Your task to perform on an android device: Clear all items from cart on walmart. Image 0: 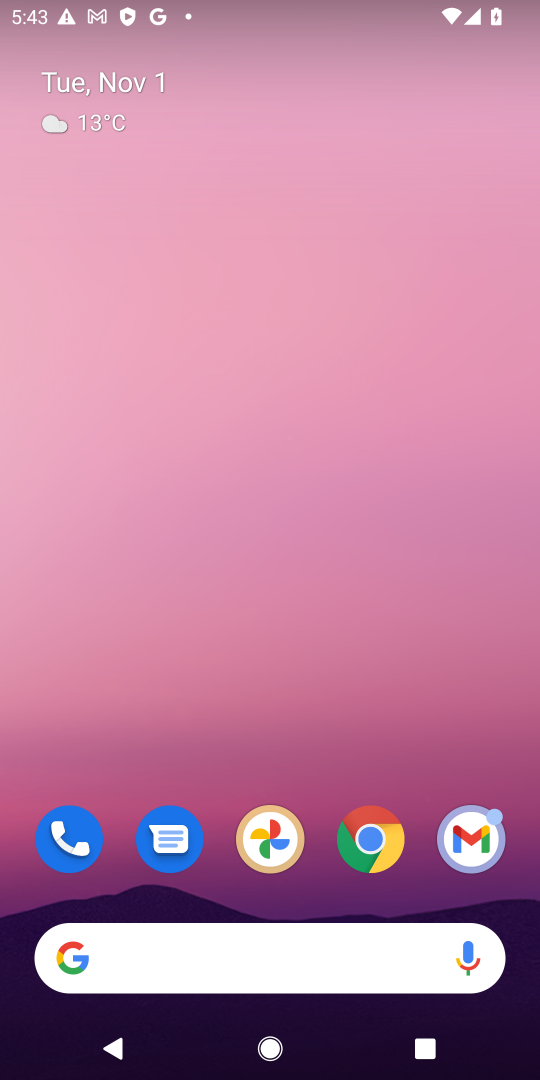
Step 0: drag from (332, 891) to (453, 123)
Your task to perform on an android device: Clear all items from cart on walmart. Image 1: 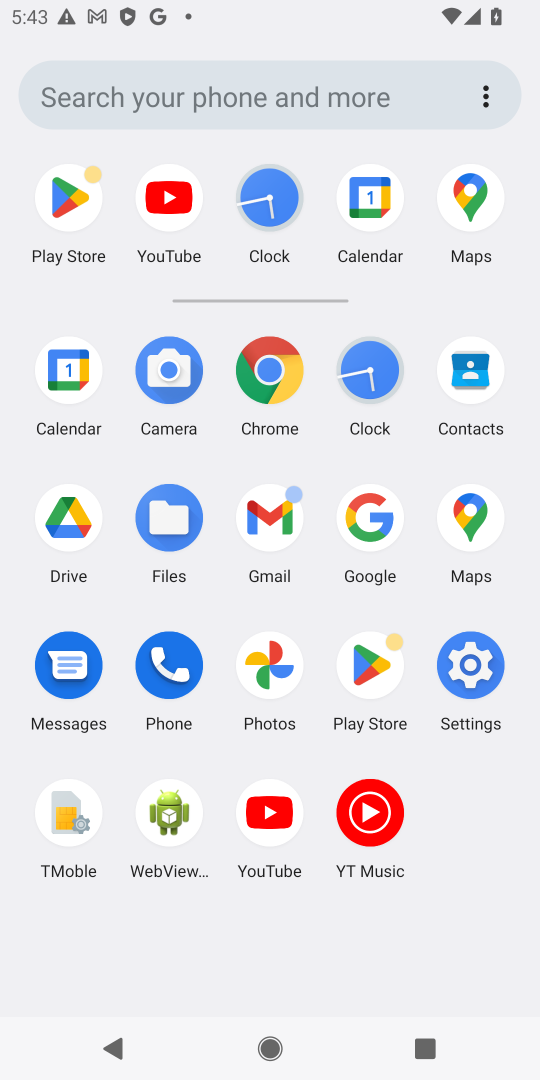
Step 1: click (265, 355)
Your task to perform on an android device: Clear all items from cart on walmart. Image 2: 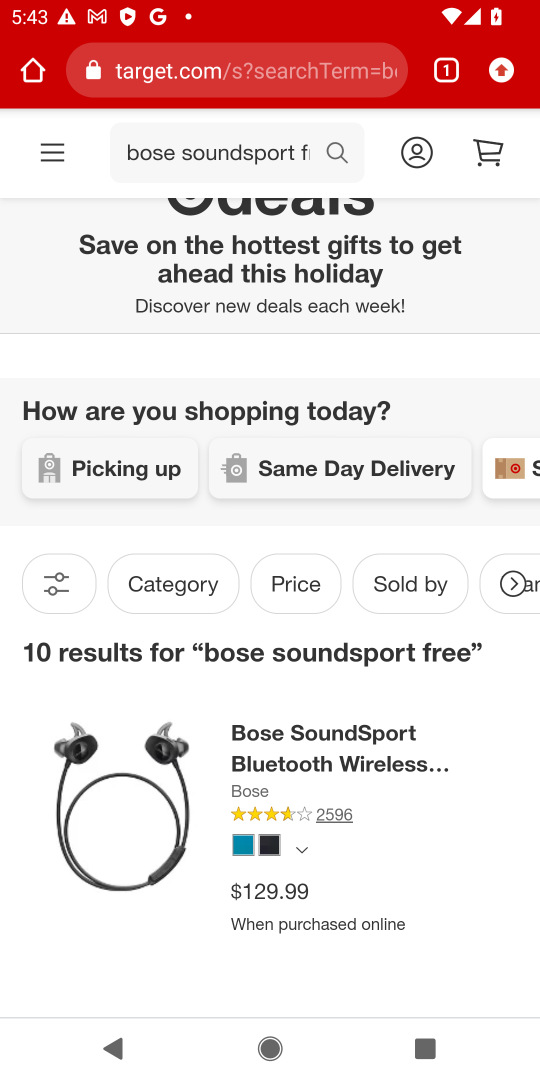
Step 2: click (281, 77)
Your task to perform on an android device: Clear all items from cart on walmart. Image 3: 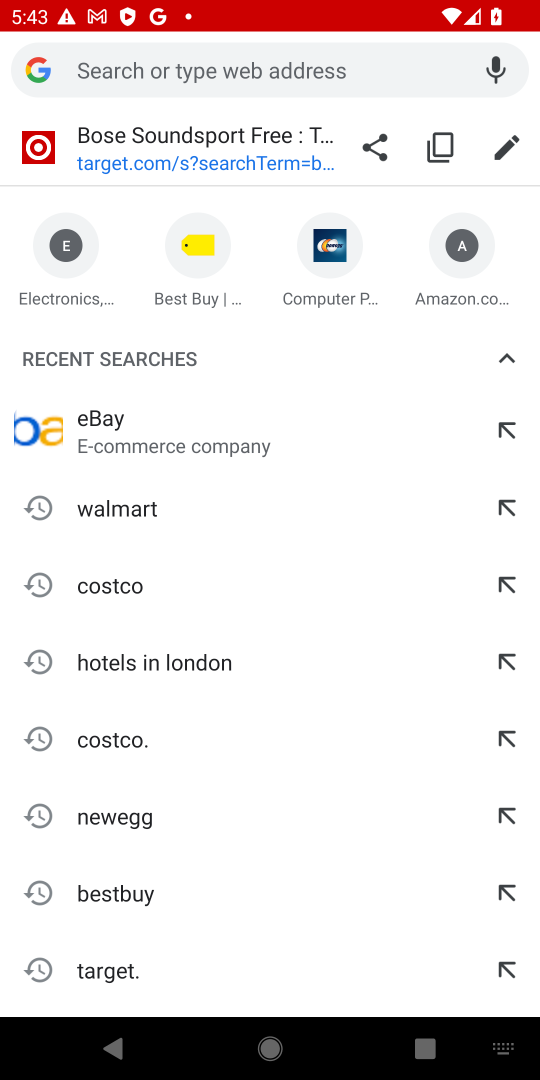
Step 3: type "walmart.com"
Your task to perform on an android device: Clear all items from cart on walmart. Image 4: 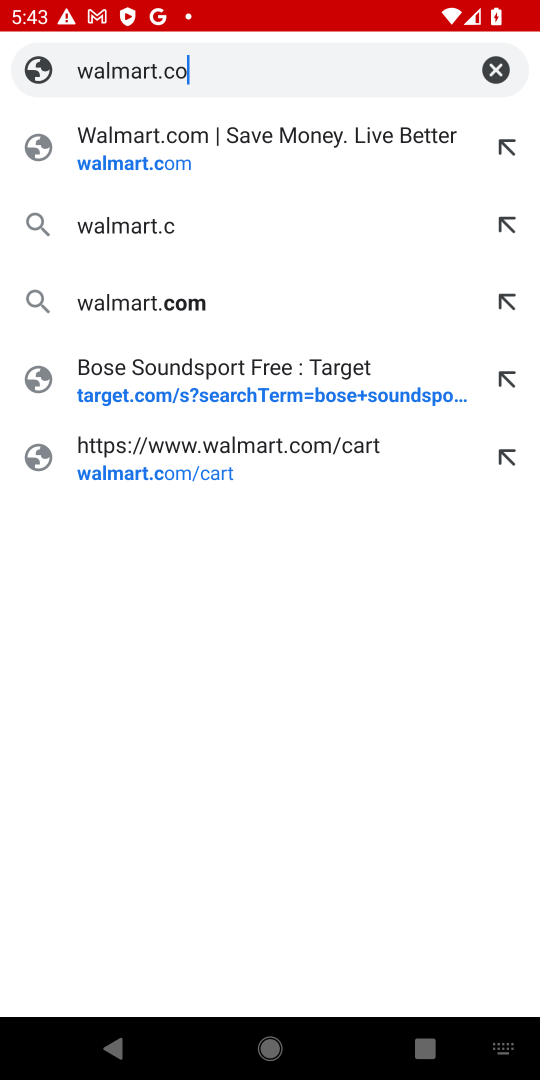
Step 4: press enter
Your task to perform on an android device: Clear all items from cart on walmart. Image 5: 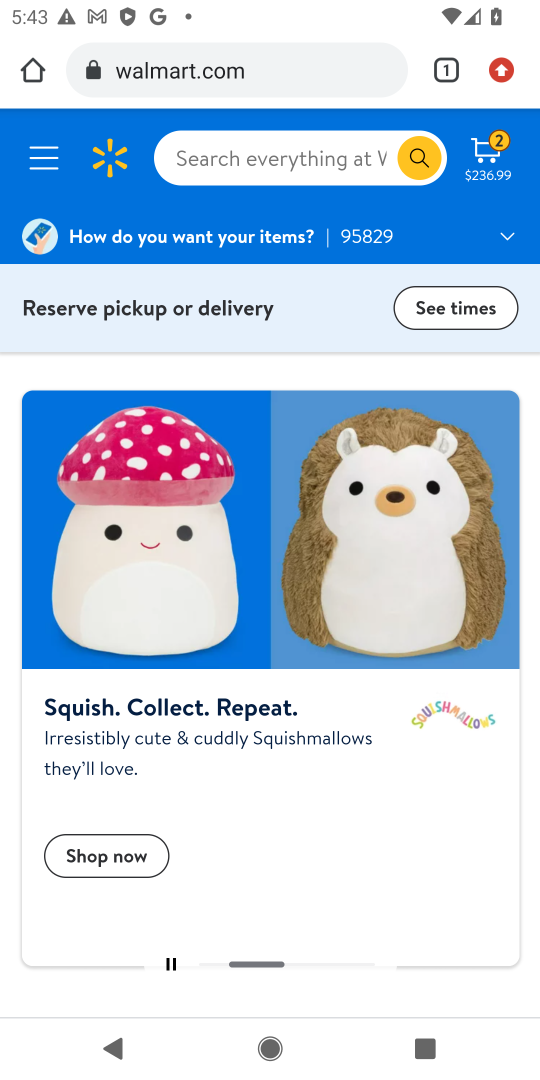
Step 5: click (510, 142)
Your task to perform on an android device: Clear all items from cart on walmart. Image 6: 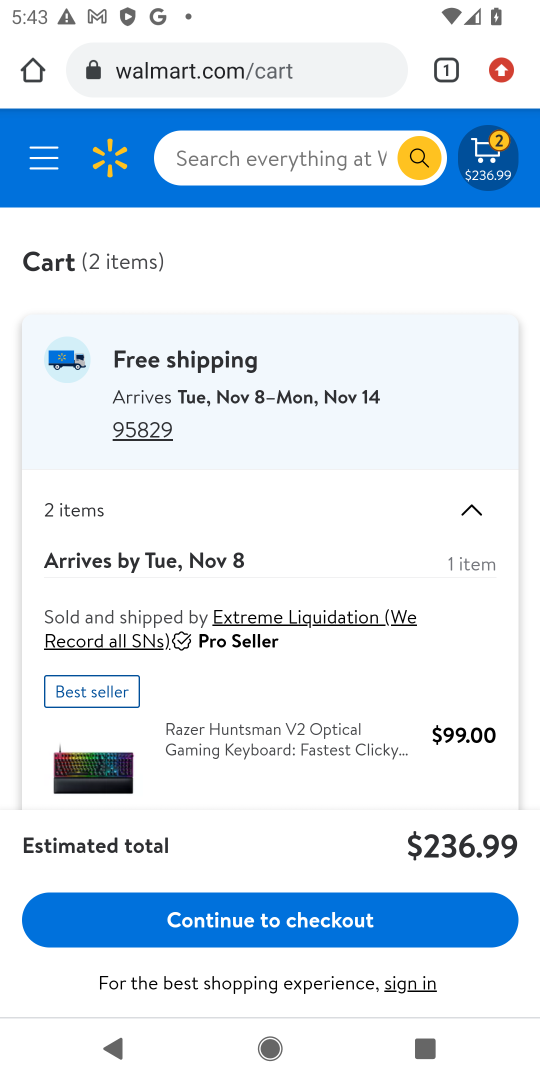
Step 6: drag from (323, 789) to (357, 334)
Your task to perform on an android device: Clear all items from cart on walmart. Image 7: 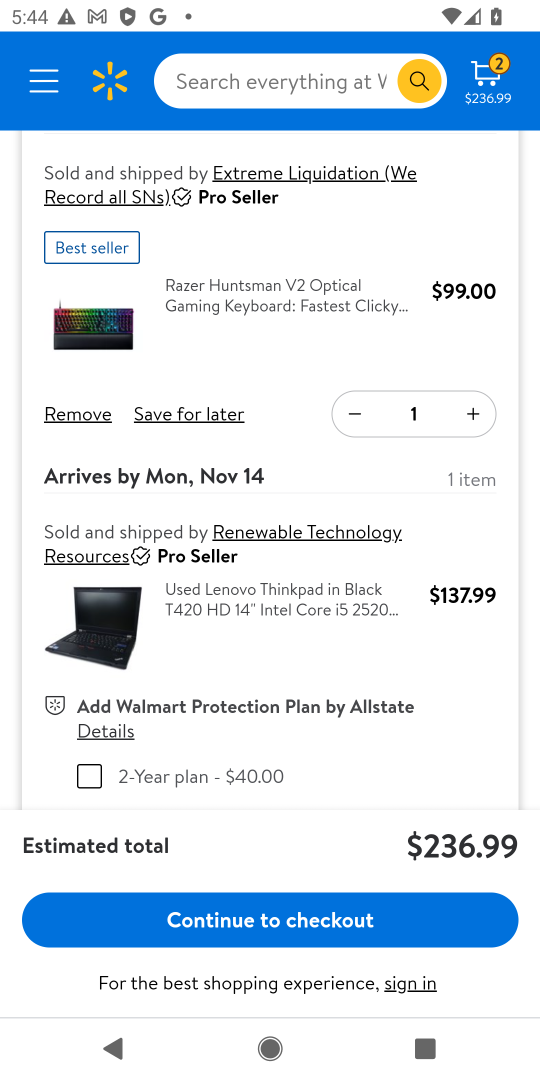
Step 7: click (80, 414)
Your task to perform on an android device: Clear all items from cart on walmart. Image 8: 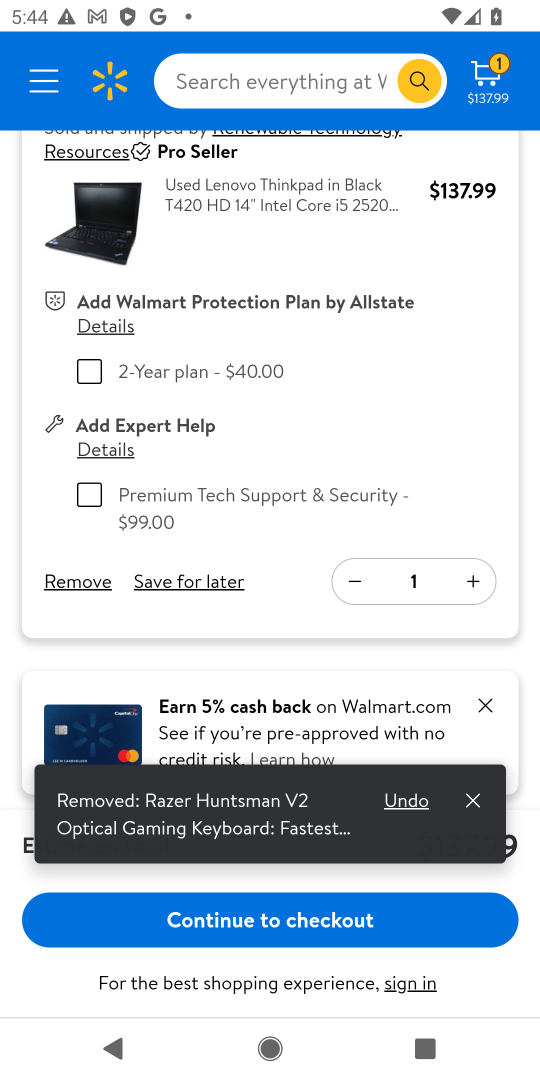
Step 8: click (75, 584)
Your task to perform on an android device: Clear all items from cart on walmart. Image 9: 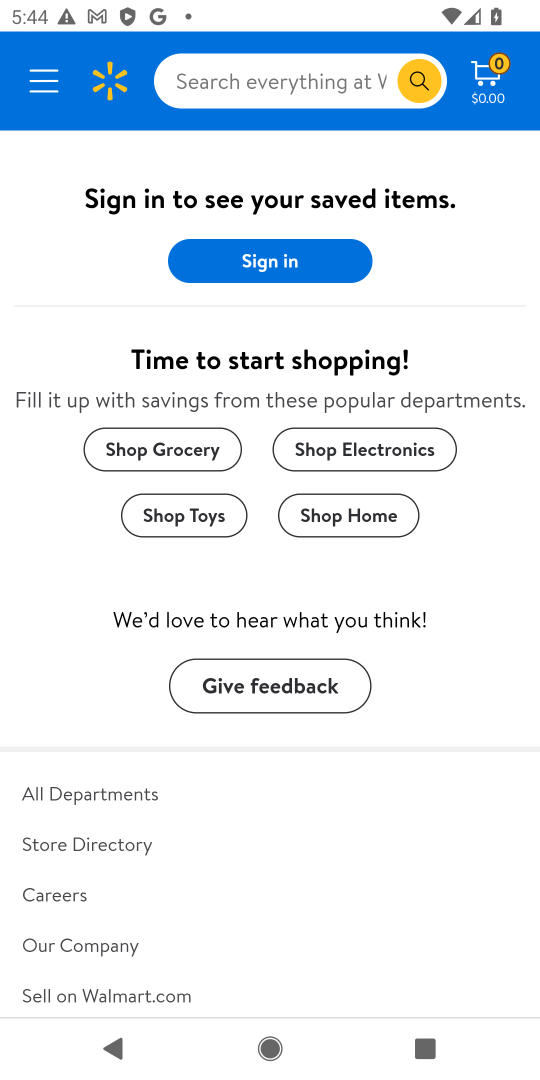
Step 9: task complete